Your task to perform on an android device: open sync settings in chrome Image 0: 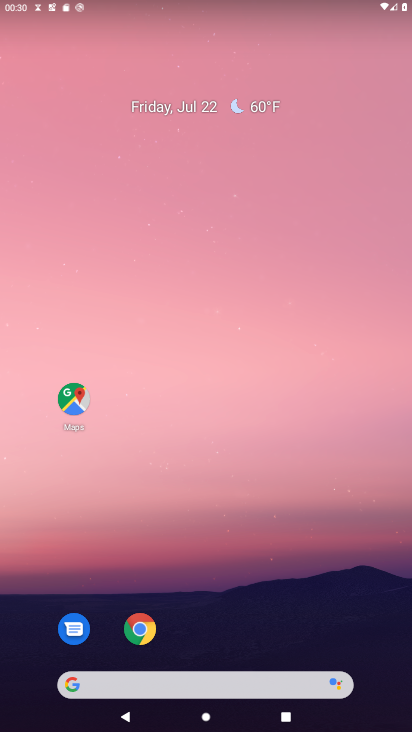
Step 0: drag from (208, 646) to (211, 165)
Your task to perform on an android device: open sync settings in chrome Image 1: 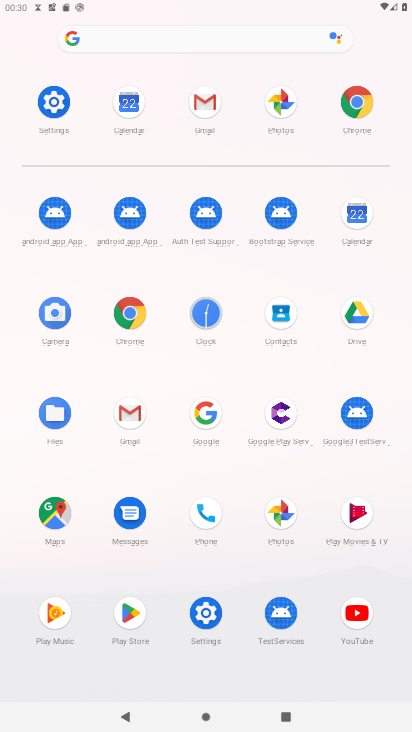
Step 1: click (355, 92)
Your task to perform on an android device: open sync settings in chrome Image 2: 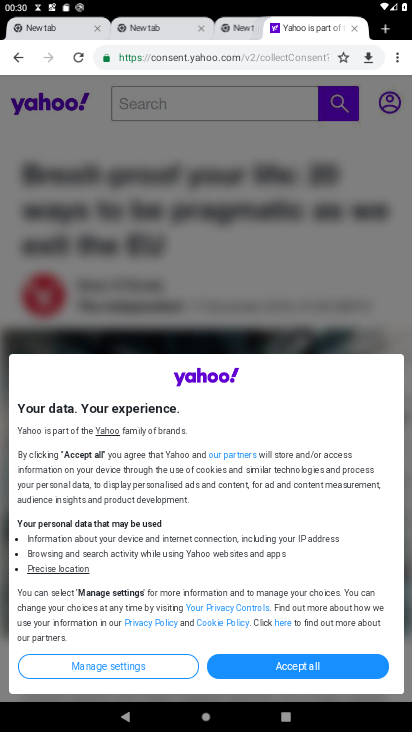
Step 2: click (408, 55)
Your task to perform on an android device: open sync settings in chrome Image 3: 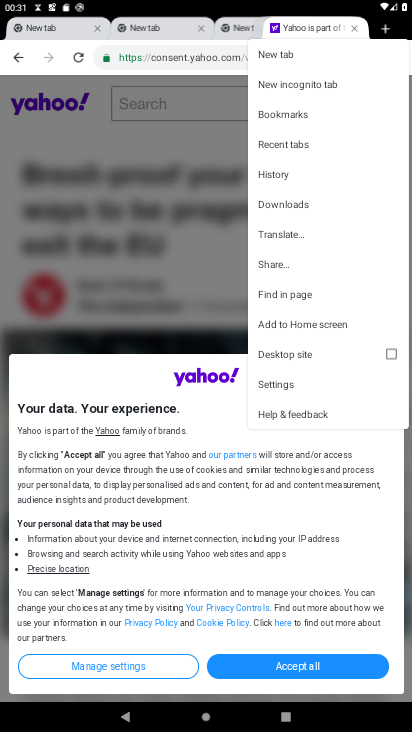
Step 3: click (290, 384)
Your task to perform on an android device: open sync settings in chrome Image 4: 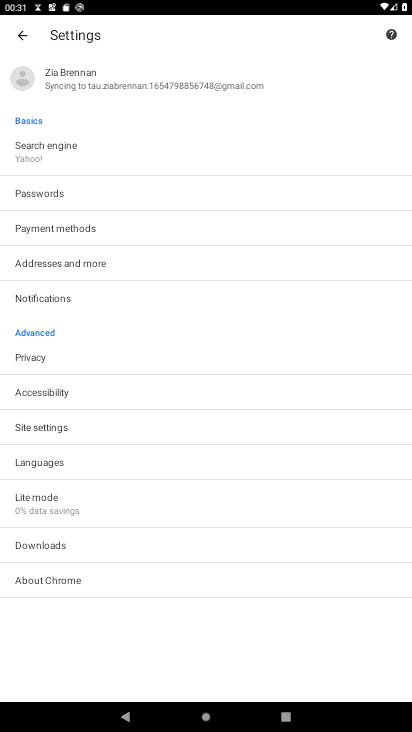
Step 4: click (72, 149)
Your task to perform on an android device: open sync settings in chrome Image 5: 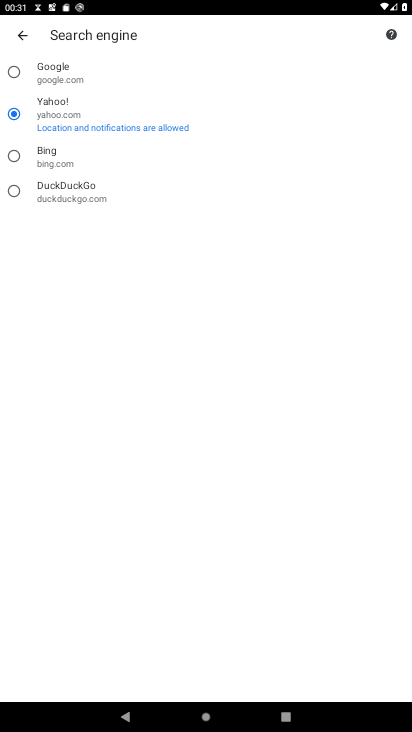
Step 5: click (10, 30)
Your task to perform on an android device: open sync settings in chrome Image 6: 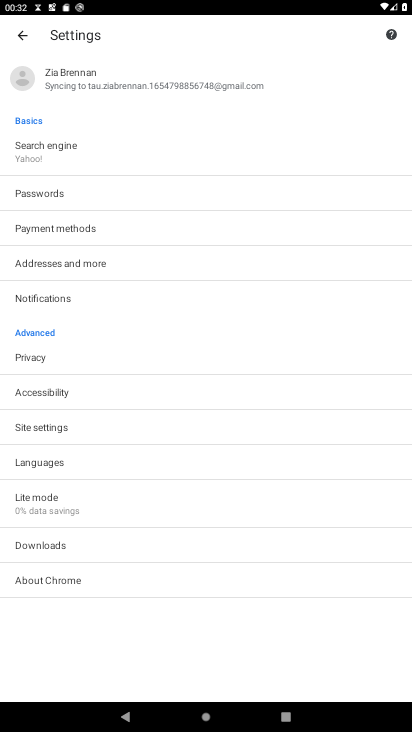
Step 6: click (84, 81)
Your task to perform on an android device: open sync settings in chrome Image 7: 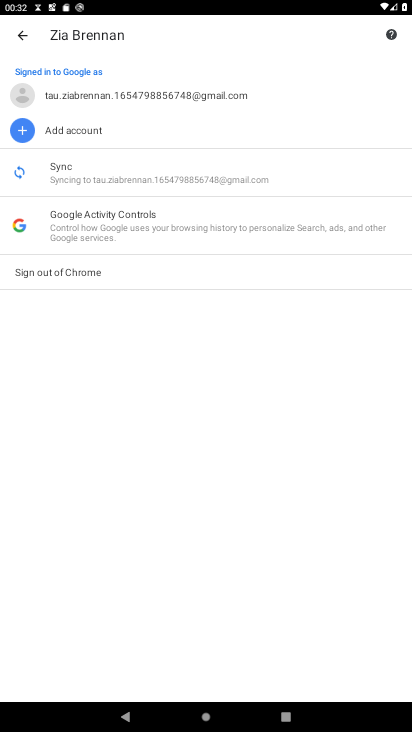
Step 7: click (107, 173)
Your task to perform on an android device: open sync settings in chrome Image 8: 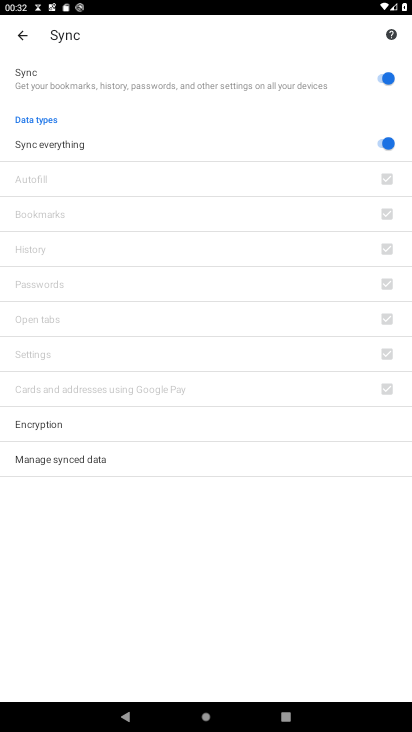
Step 8: task complete